Your task to perform on an android device: change notifications settings Image 0: 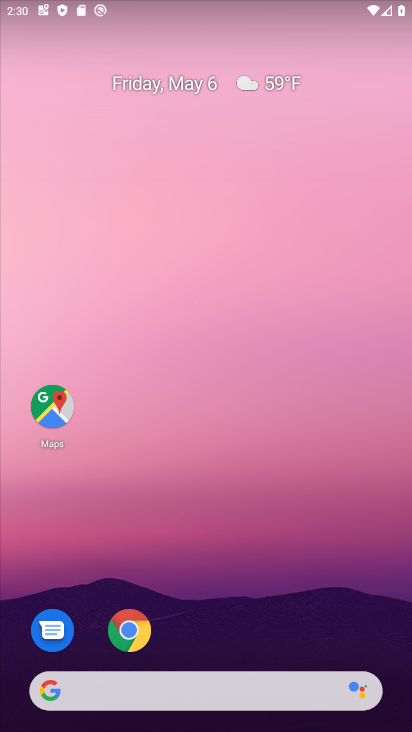
Step 0: drag from (214, 627) to (209, 248)
Your task to perform on an android device: change notifications settings Image 1: 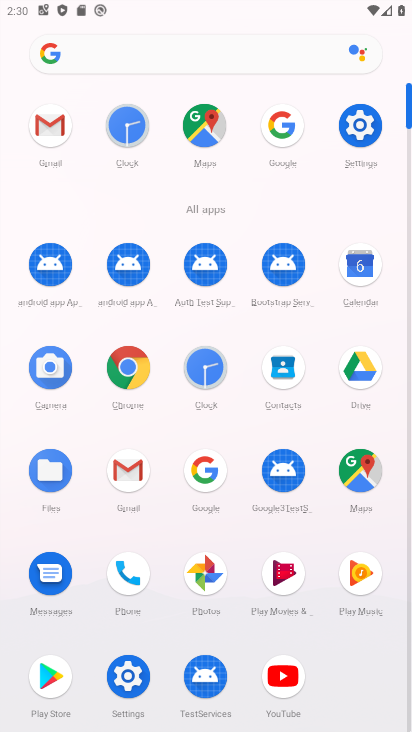
Step 1: click (363, 125)
Your task to perform on an android device: change notifications settings Image 2: 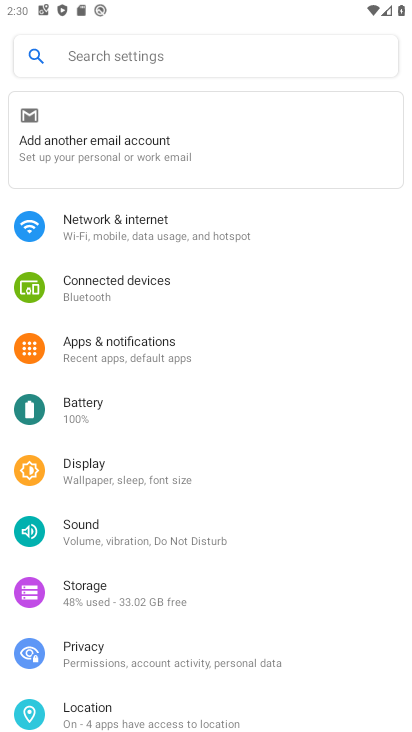
Step 2: click (153, 335)
Your task to perform on an android device: change notifications settings Image 3: 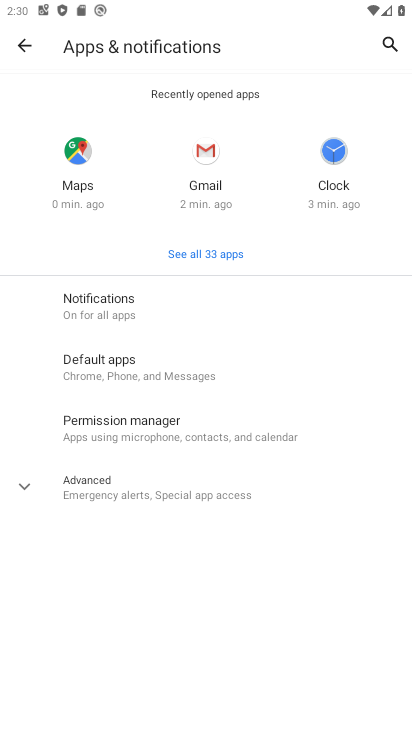
Step 3: click (155, 299)
Your task to perform on an android device: change notifications settings Image 4: 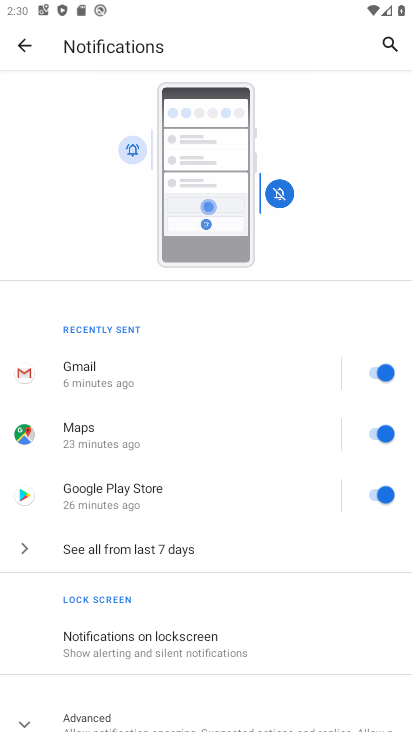
Step 4: drag from (201, 646) to (191, 320)
Your task to perform on an android device: change notifications settings Image 5: 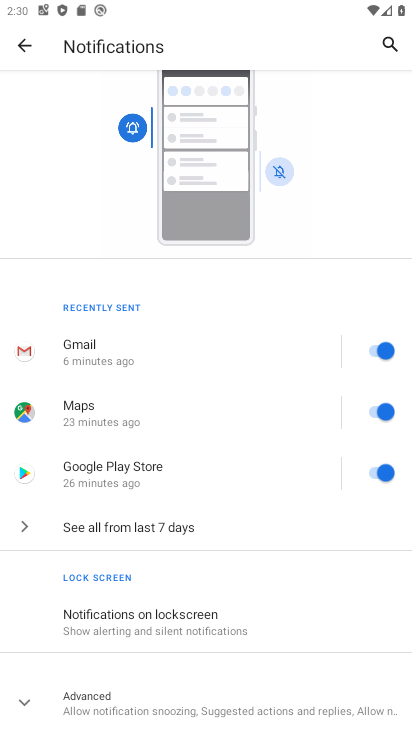
Step 5: click (184, 621)
Your task to perform on an android device: change notifications settings Image 6: 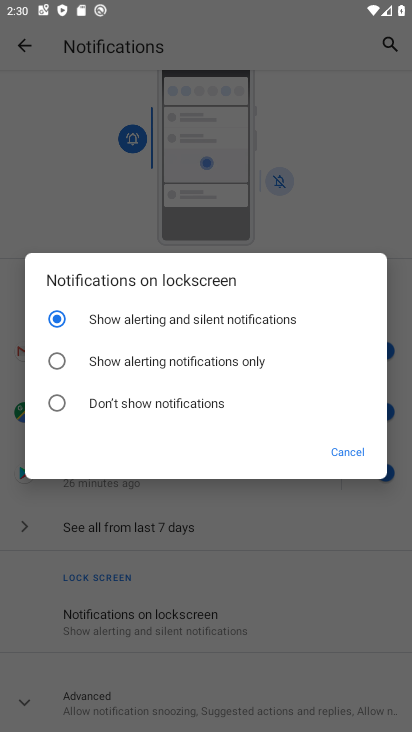
Step 6: click (182, 400)
Your task to perform on an android device: change notifications settings Image 7: 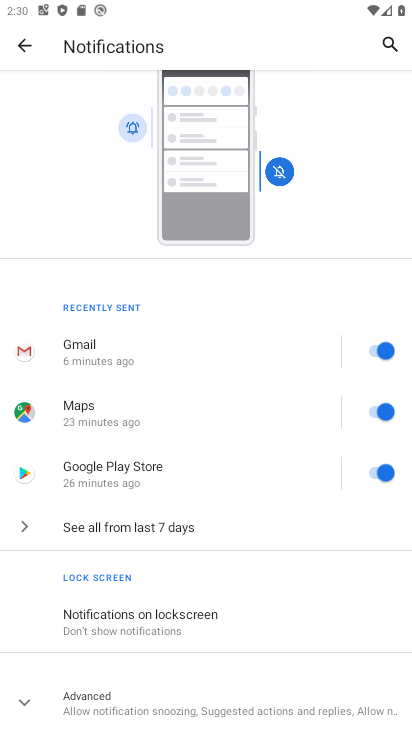
Step 7: task complete